Your task to perform on an android device: refresh tabs in the chrome app Image 0: 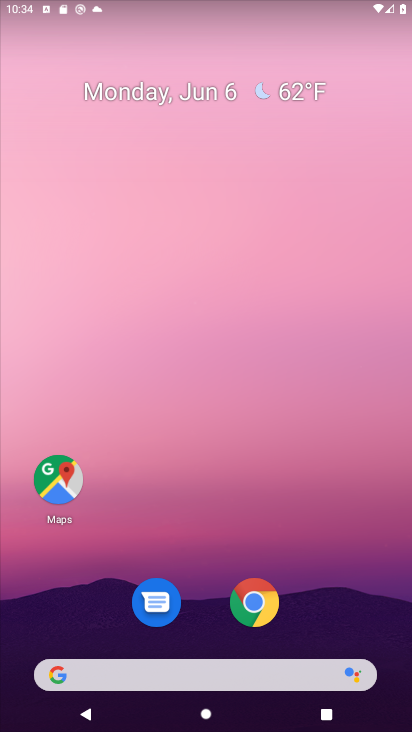
Step 0: drag from (291, 693) to (326, 320)
Your task to perform on an android device: refresh tabs in the chrome app Image 1: 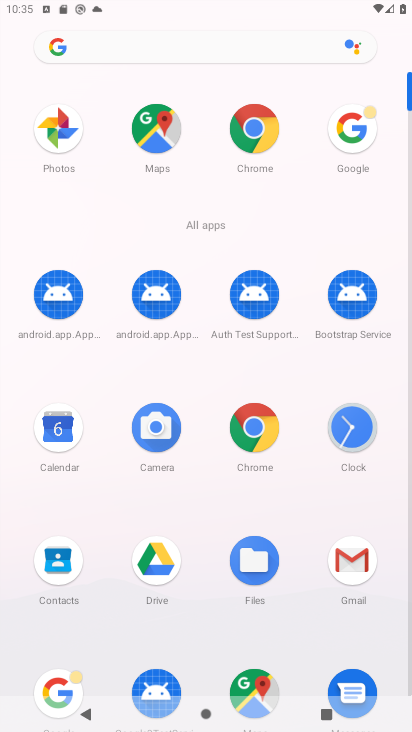
Step 1: click (252, 144)
Your task to perform on an android device: refresh tabs in the chrome app Image 2: 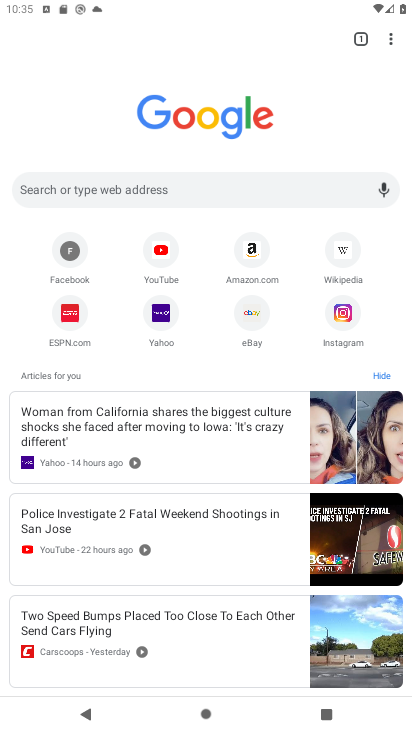
Step 2: click (392, 39)
Your task to perform on an android device: refresh tabs in the chrome app Image 3: 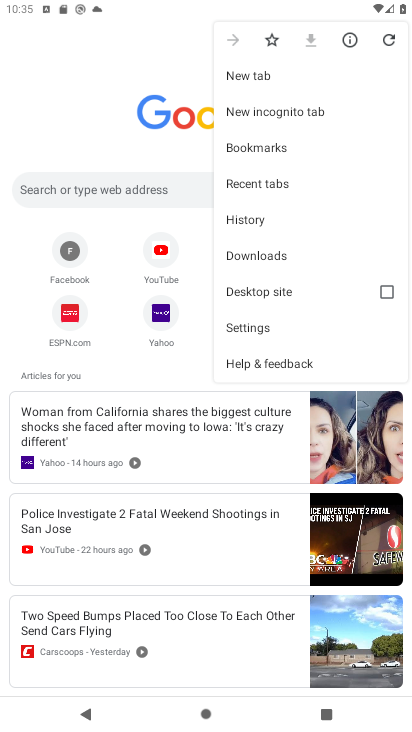
Step 3: click (386, 37)
Your task to perform on an android device: refresh tabs in the chrome app Image 4: 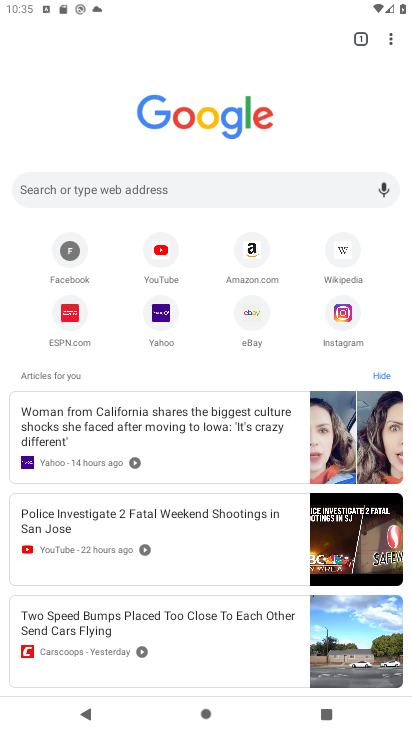
Step 4: click (379, 36)
Your task to perform on an android device: refresh tabs in the chrome app Image 5: 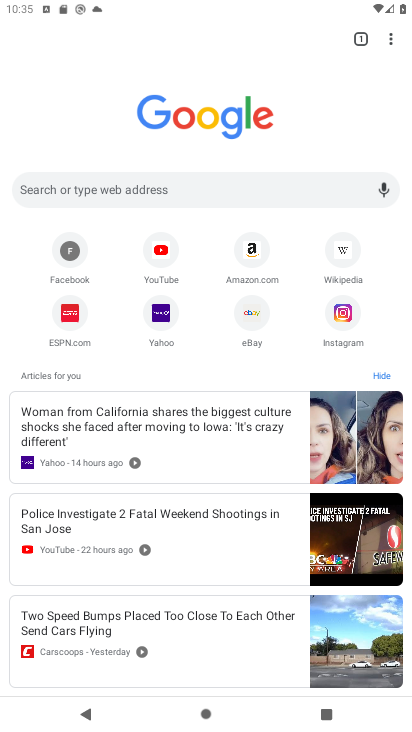
Step 5: click (379, 36)
Your task to perform on an android device: refresh tabs in the chrome app Image 6: 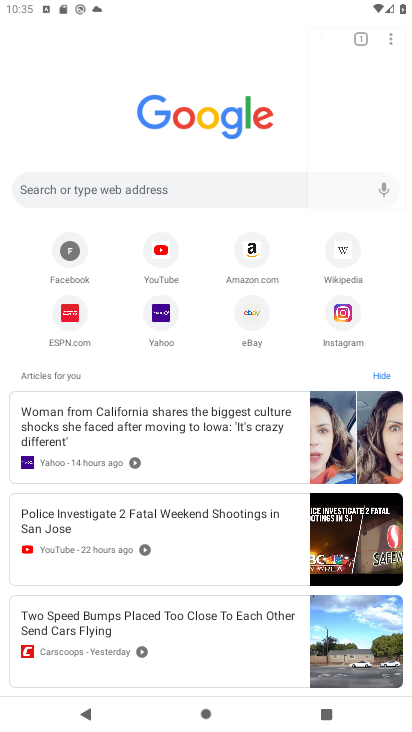
Step 6: click (379, 36)
Your task to perform on an android device: refresh tabs in the chrome app Image 7: 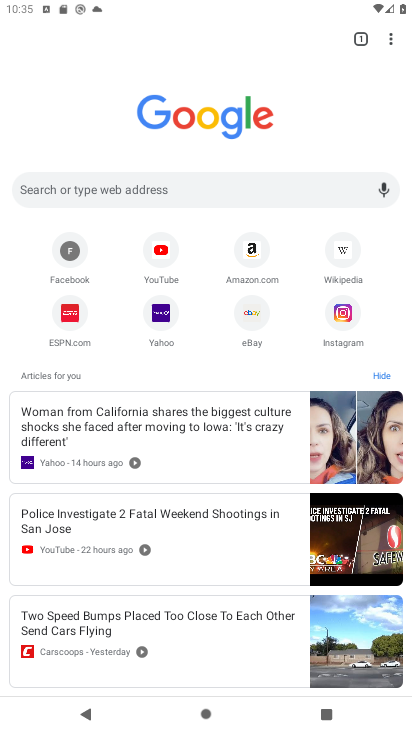
Step 7: click (389, 41)
Your task to perform on an android device: refresh tabs in the chrome app Image 8: 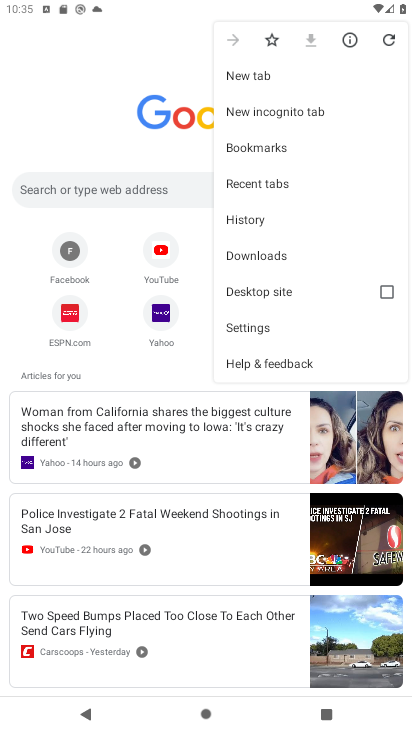
Step 8: click (389, 41)
Your task to perform on an android device: refresh tabs in the chrome app Image 9: 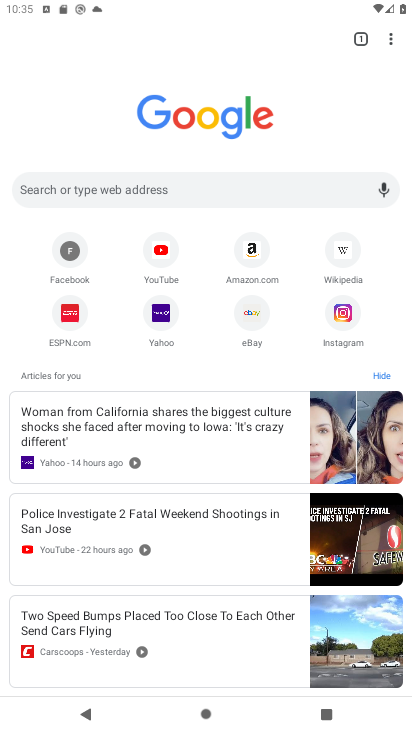
Step 9: task complete